Your task to perform on an android device: Open Chrome and go to settings Image 0: 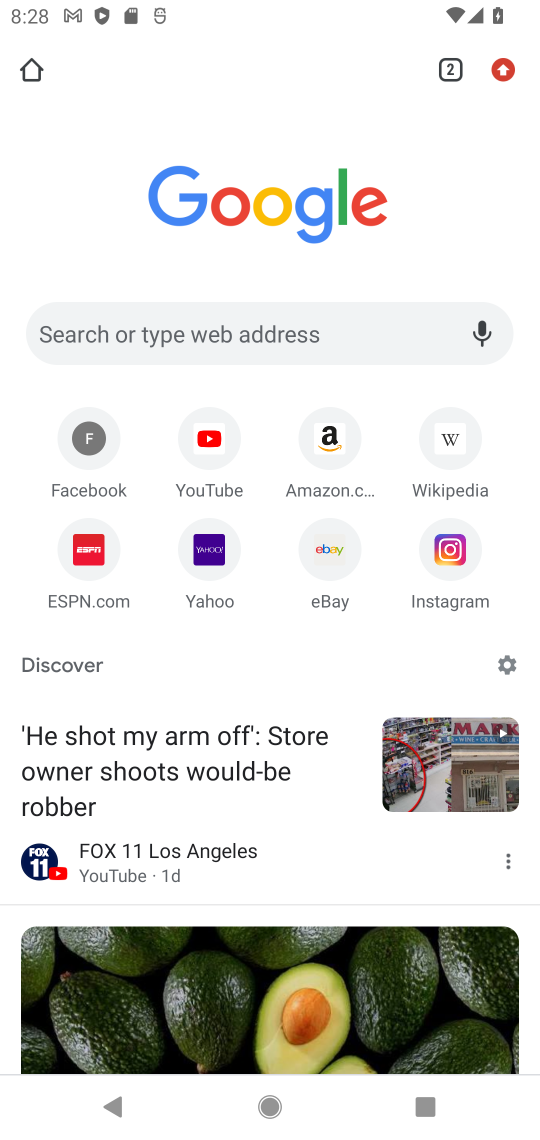
Step 0: click (496, 68)
Your task to perform on an android device: Open Chrome and go to settings Image 1: 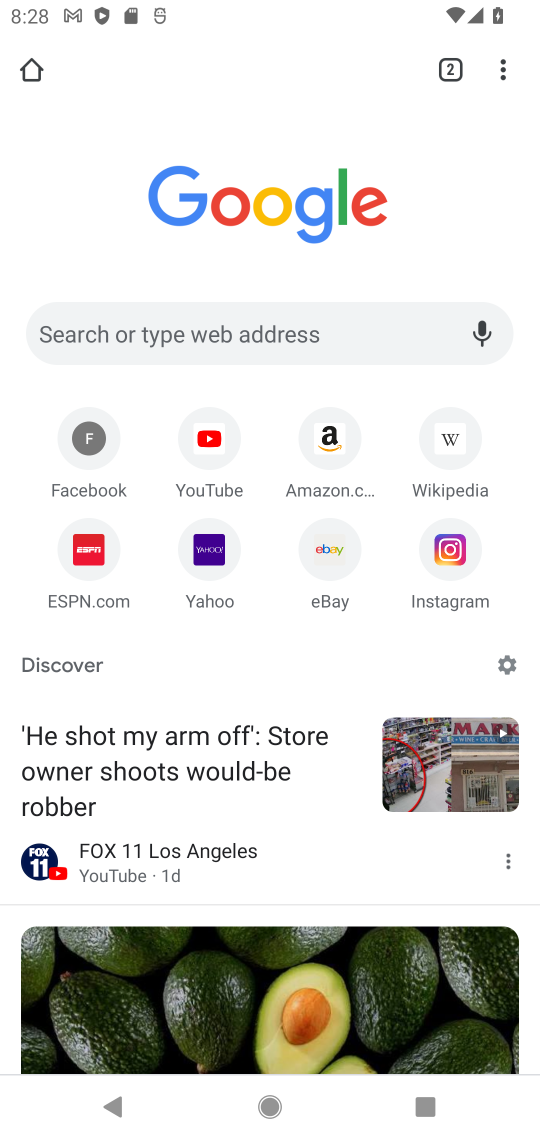
Step 1: click (499, 72)
Your task to perform on an android device: Open Chrome and go to settings Image 2: 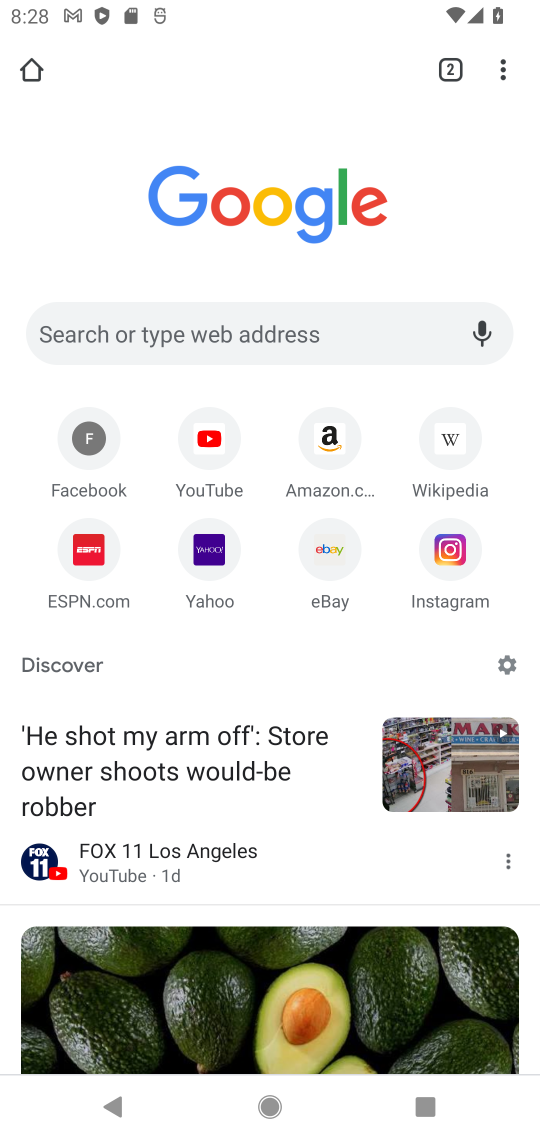
Step 2: click (499, 72)
Your task to perform on an android device: Open Chrome and go to settings Image 3: 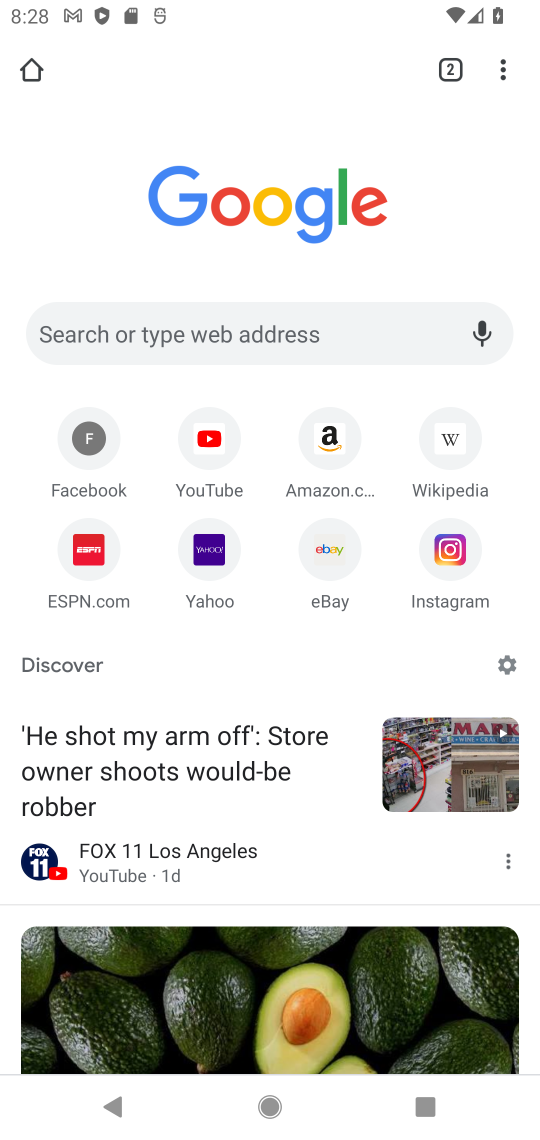
Step 3: click (496, 72)
Your task to perform on an android device: Open Chrome and go to settings Image 4: 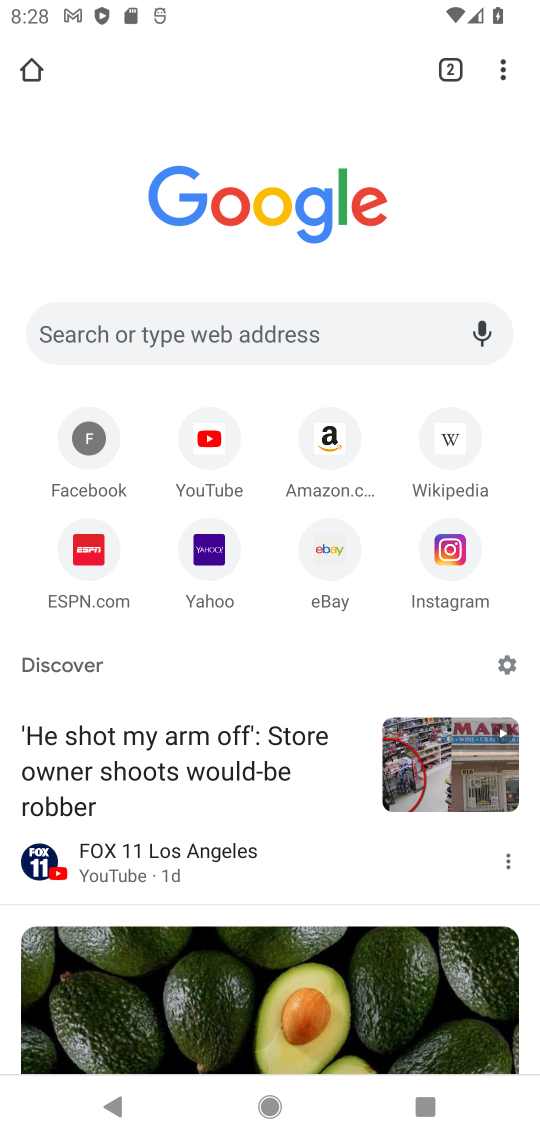
Step 4: click (485, 77)
Your task to perform on an android device: Open Chrome and go to settings Image 5: 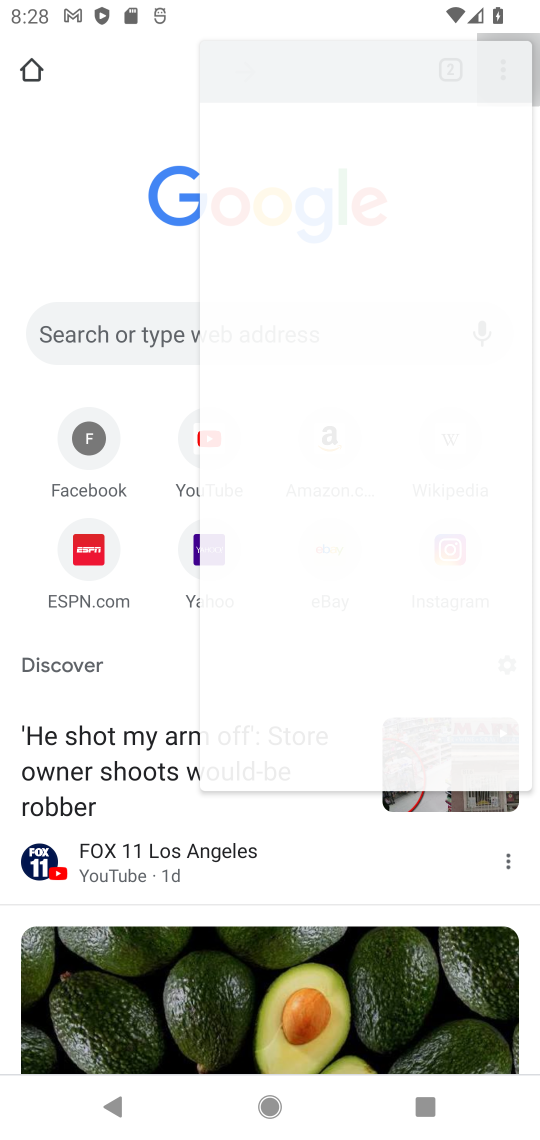
Step 5: click (498, 67)
Your task to perform on an android device: Open Chrome and go to settings Image 6: 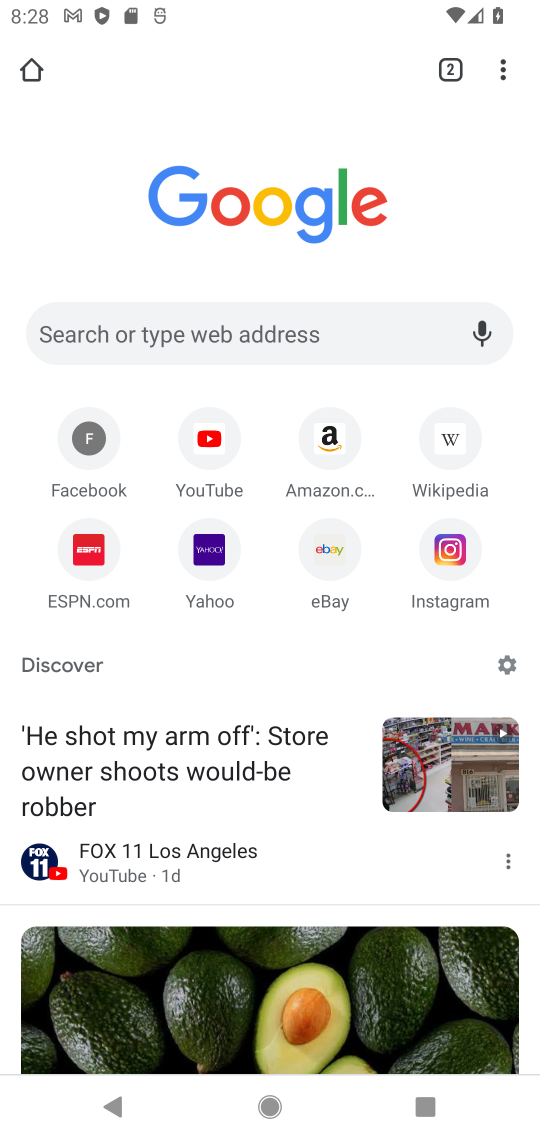
Step 6: task complete